Your task to perform on an android device: manage bookmarks in the chrome app Image 0: 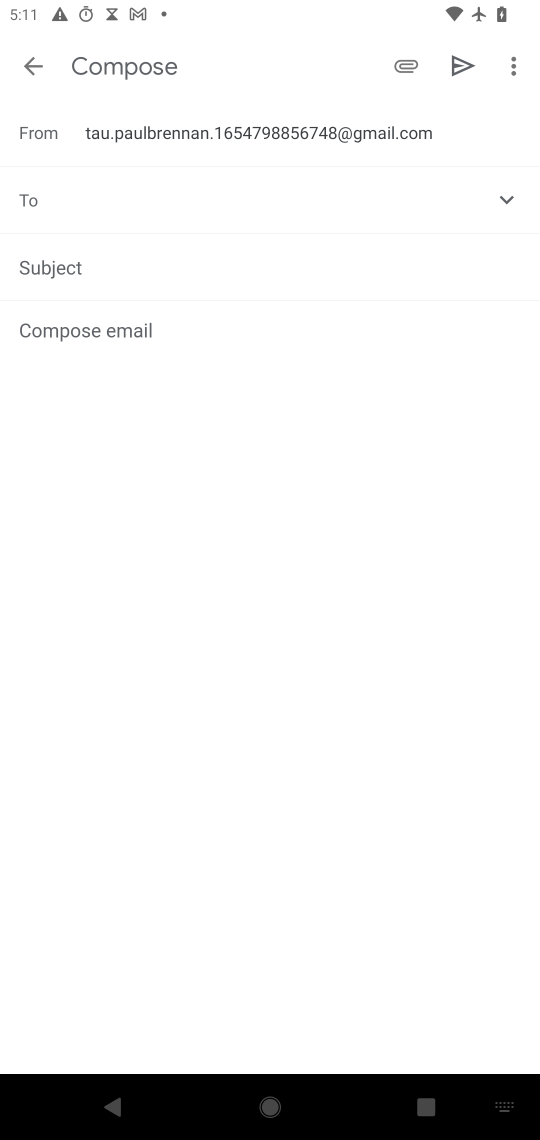
Step 0: press home button
Your task to perform on an android device: manage bookmarks in the chrome app Image 1: 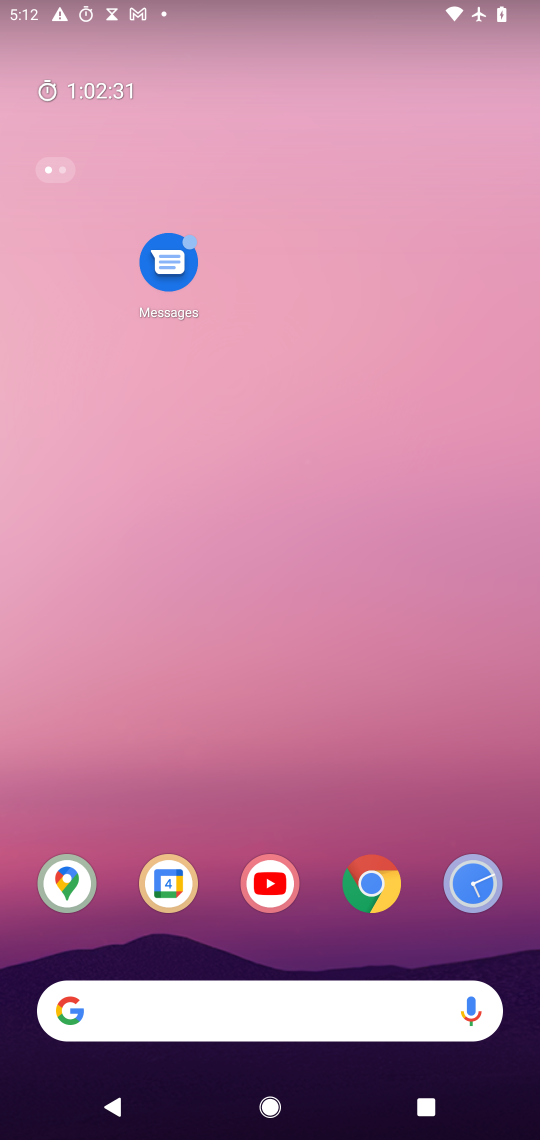
Step 1: click (370, 889)
Your task to perform on an android device: manage bookmarks in the chrome app Image 2: 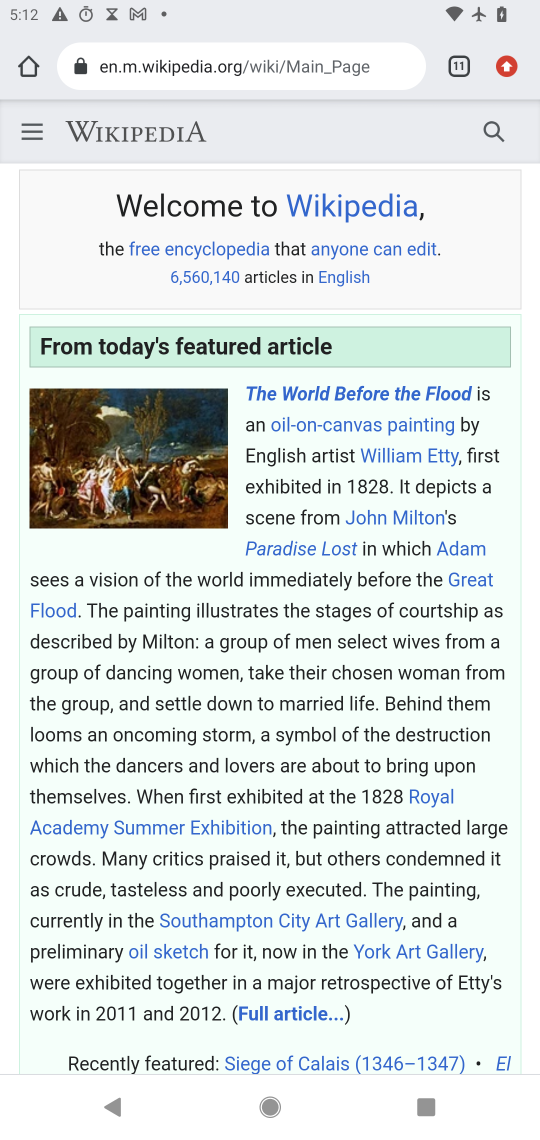
Step 2: click (509, 71)
Your task to perform on an android device: manage bookmarks in the chrome app Image 3: 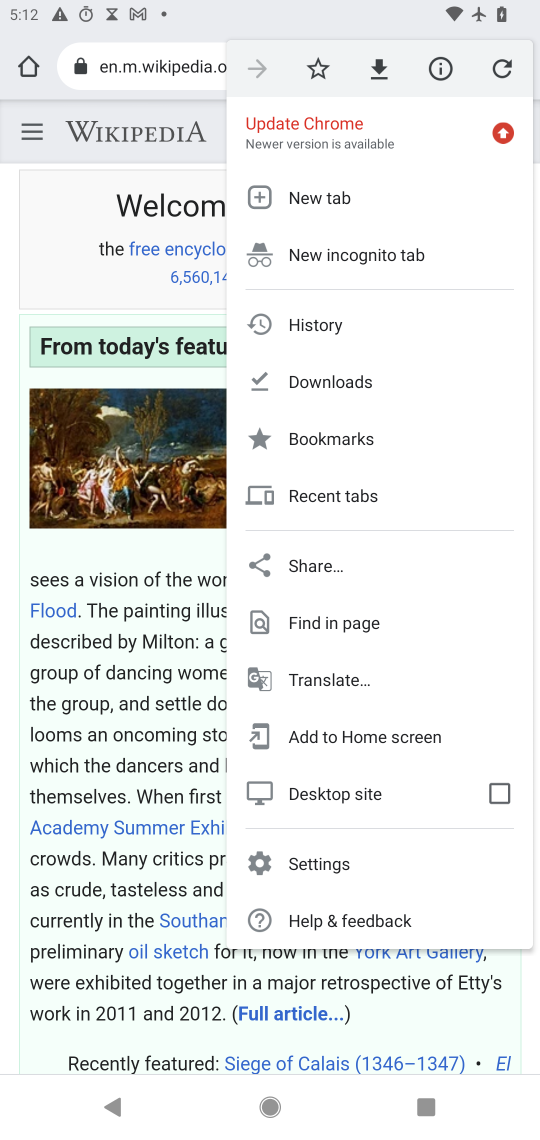
Step 3: click (329, 437)
Your task to perform on an android device: manage bookmarks in the chrome app Image 4: 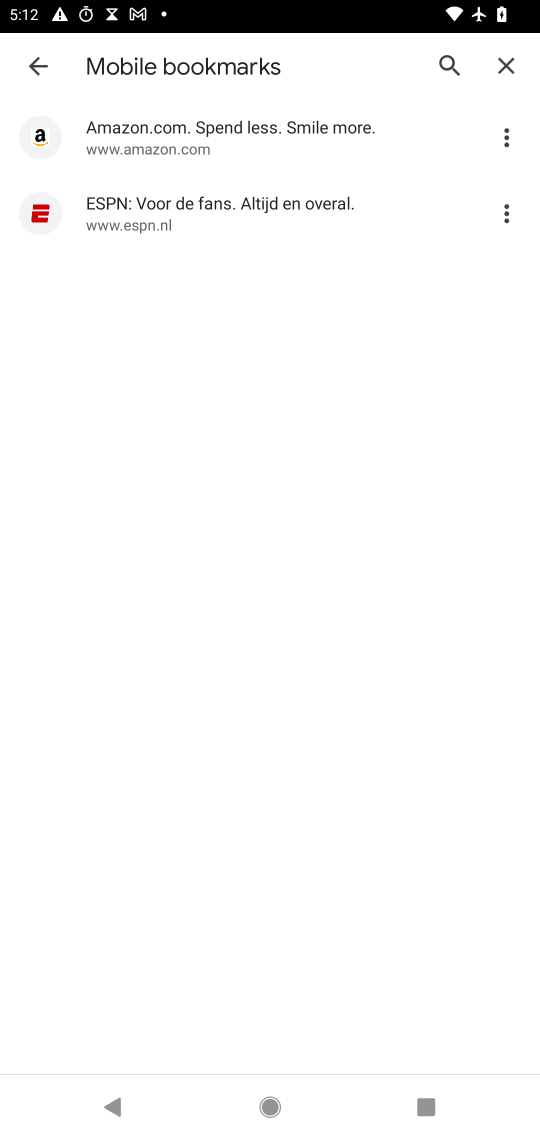
Step 4: click (508, 221)
Your task to perform on an android device: manage bookmarks in the chrome app Image 5: 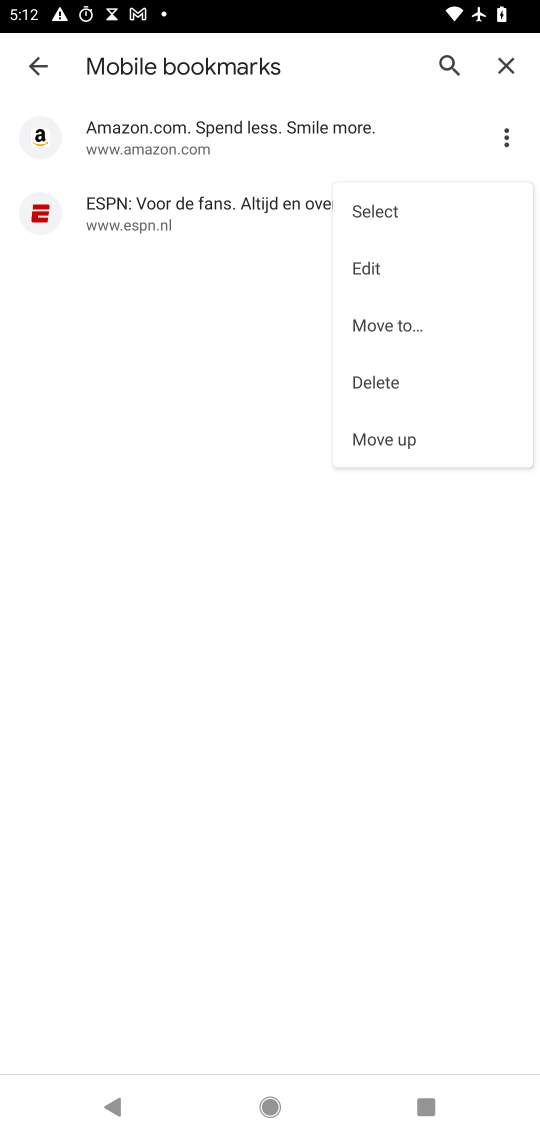
Step 5: click (371, 263)
Your task to perform on an android device: manage bookmarks in the chrome app Image 6: 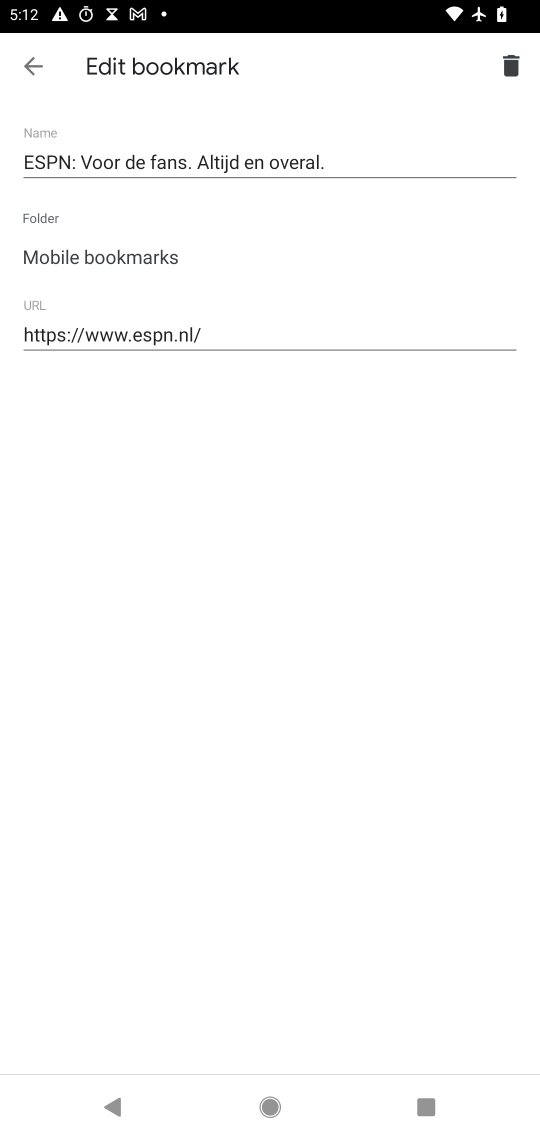
Step 6: click (275, 164)
Your task to perform on an android device: manage bookmarks in the chrome app Image 7: 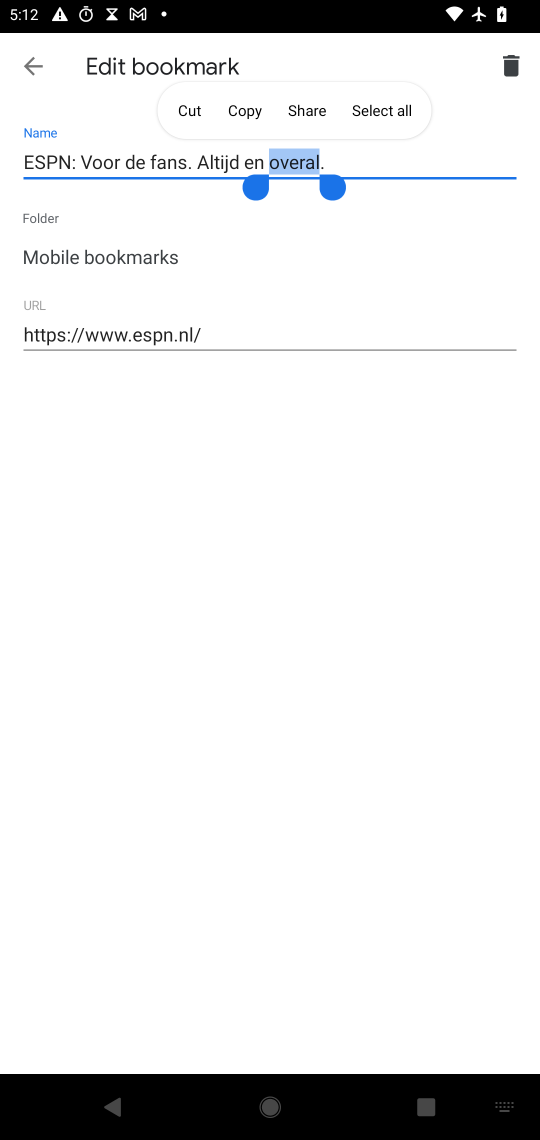
Step 7: click (188, 108)
Your task to perform on an android device: manage bookmarks in the chrome app Image 8: 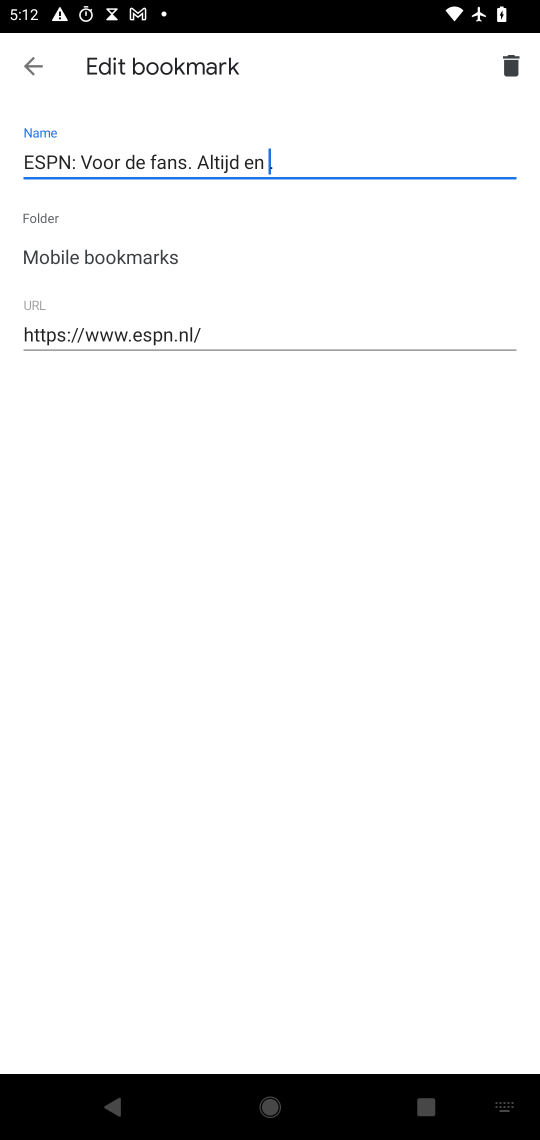
Step 8: click (33, 73)
Your task to perform on an android device: manage bookmarks in the chrome app Image 9: 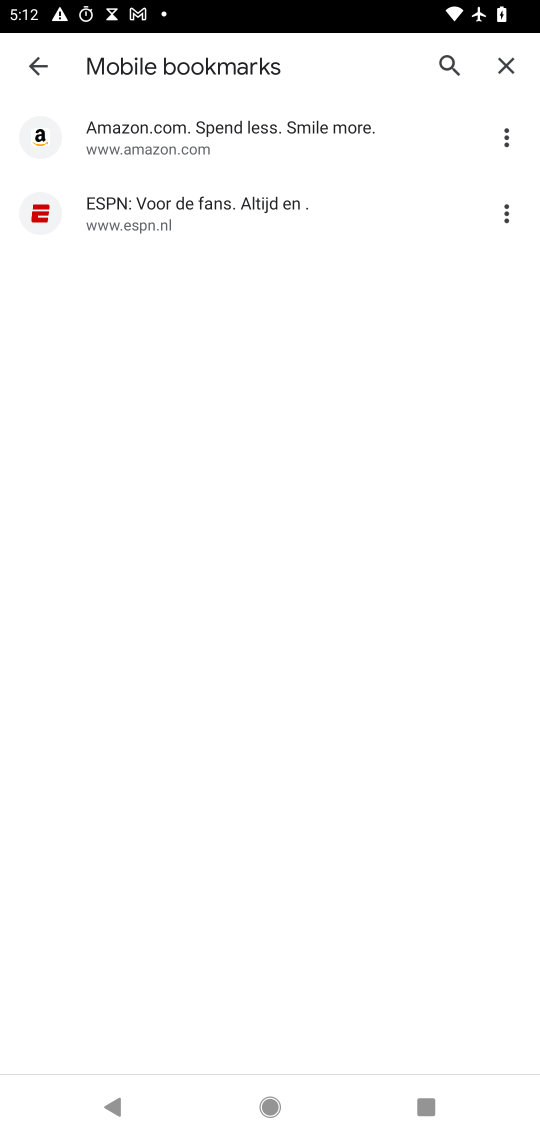
Step 9: task complete